Your task to perform on an android device: Open a new Chrome incognito tab Image 0: 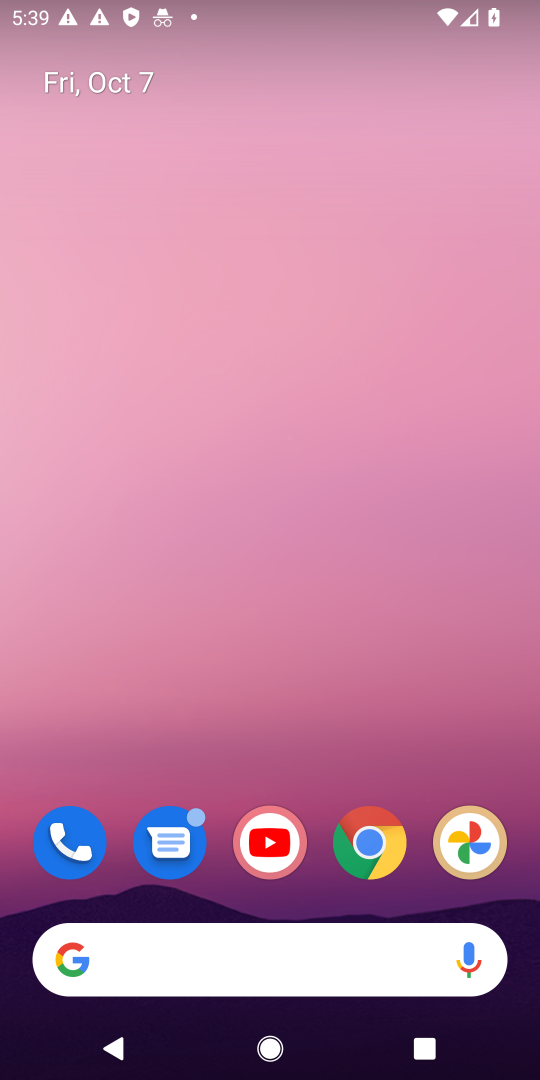
Step 0: drag from (171, 869) to (294, 224)
Your task to perform on an android device: Open a new Chrome incognito tab Image 1: 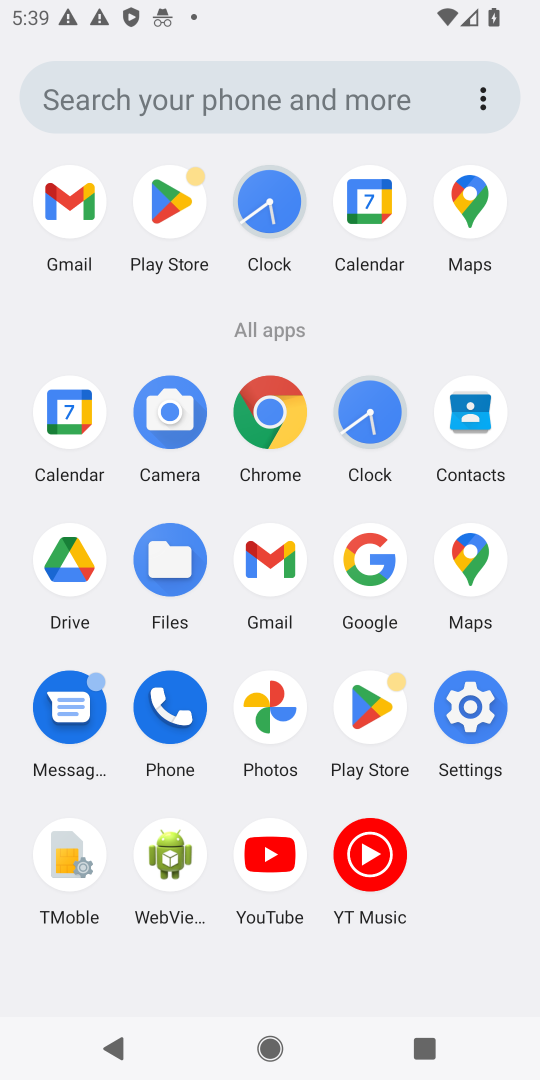
Step 1: click (283, 411)
Your task to perform on an android device: Open a new Chrome incognito tab Image 2: 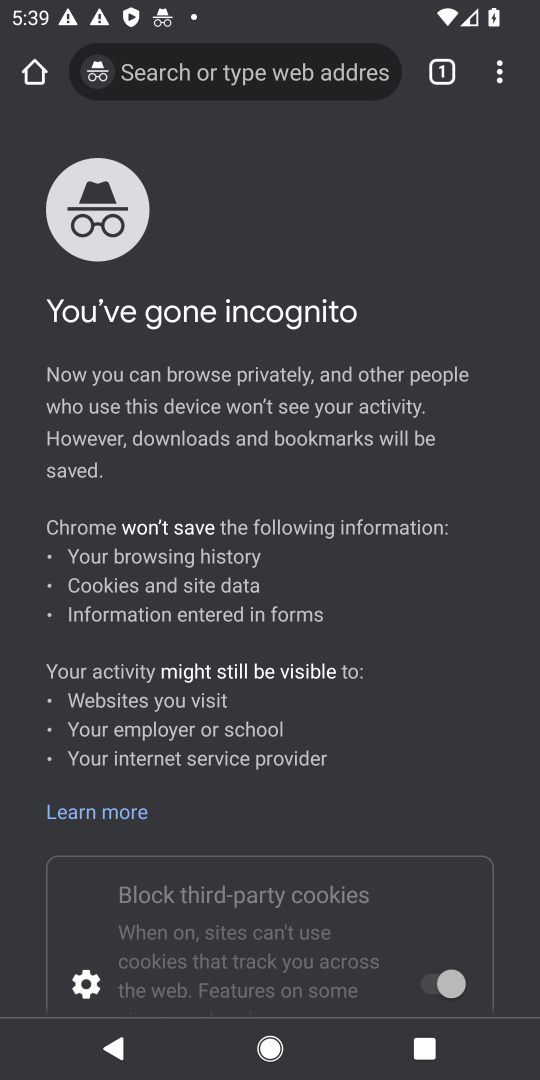
Step 2: task complete